Your task to perform on an android device: turn pop-ups on in chrome Image 0: 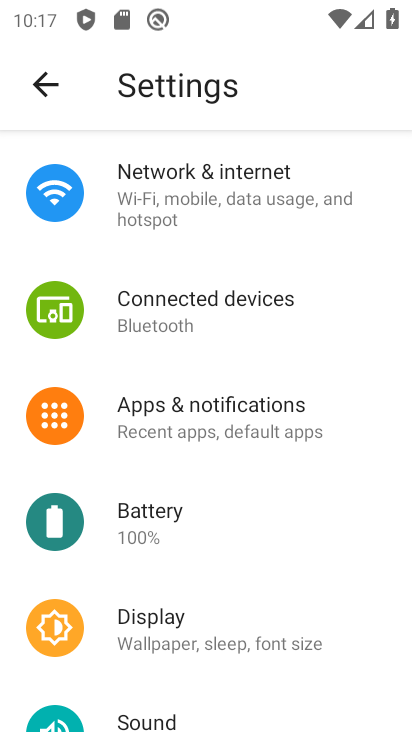
Step 0: press home button
Your task to perform on an android device: turn pop-ups on in chrome Image 1: 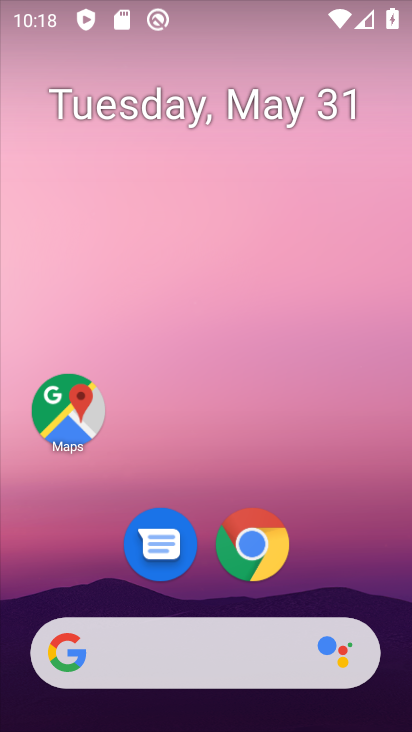
Step 1: click (253, 558)
Your task to perform on an android device: turn pop-ups on in chrome Image 2: 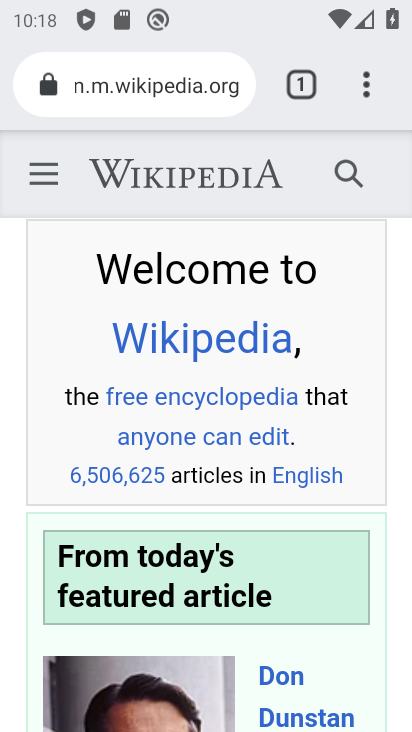
Step 2: click (366, 76)
Your task to perform on an android device: turn pop-ups on in chrome Image 3: 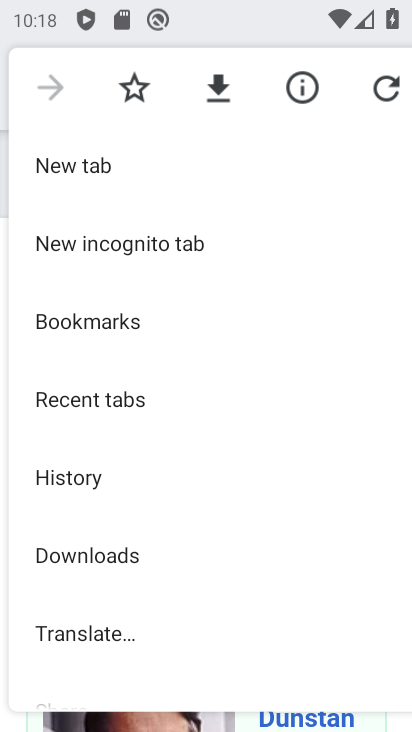
Step 3: drag from (185, 541) to (209, 220)
Your task to perform on an android device: turn pop-ups on in chrome Image 4: 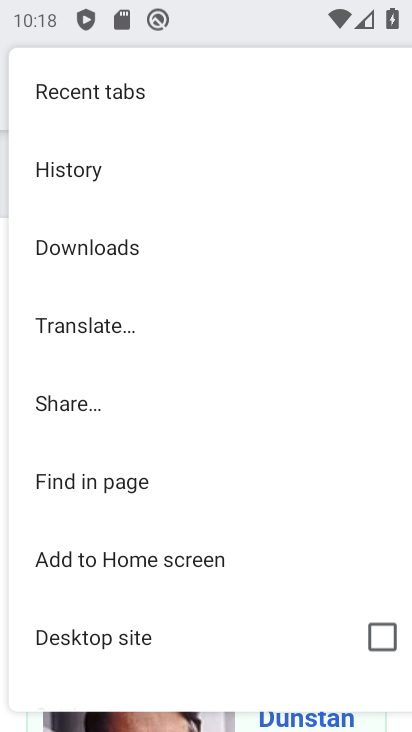
Step 4: drag from (207, 564) to (231, 270)
Your task to perform on an android device: turn pop-ups on in chrome Image 5: 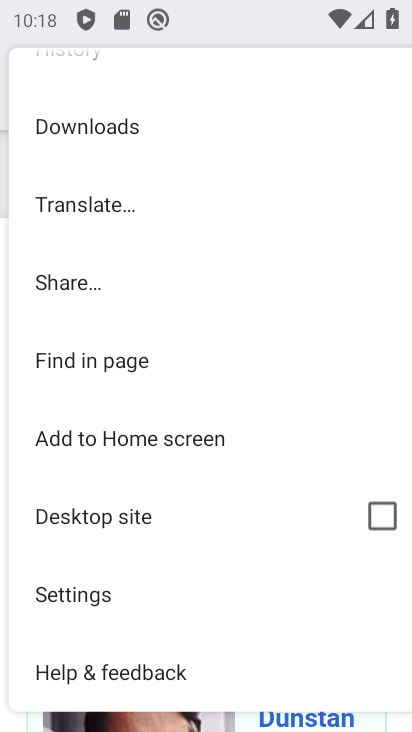
Step 5: click (112, 598)
Your task to perform on an android device: turn pop-ups on in chrome Image 6: 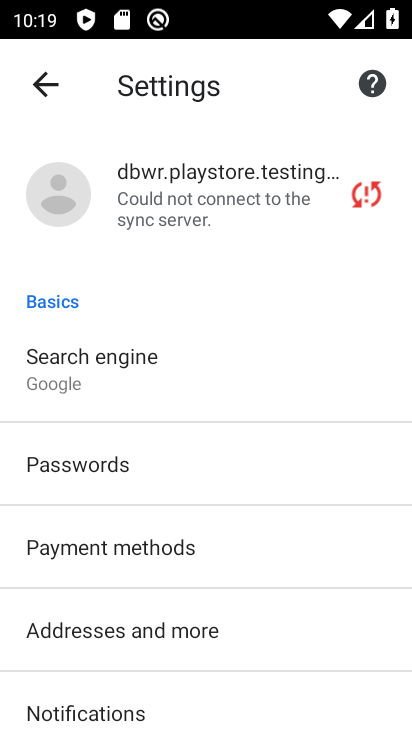
Step 6: drag from (148, 673) to (145, 406)
Your task to perform on an android device: turn pop-ups on in chrome Image 7: 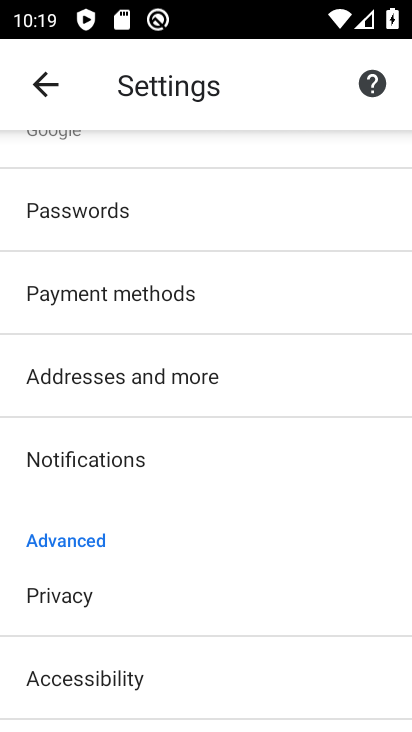
Step 7: drag from (219, 583) to (210, 272)
Your task to perform on an android device: turn pop-ups on in chrome Image 8: 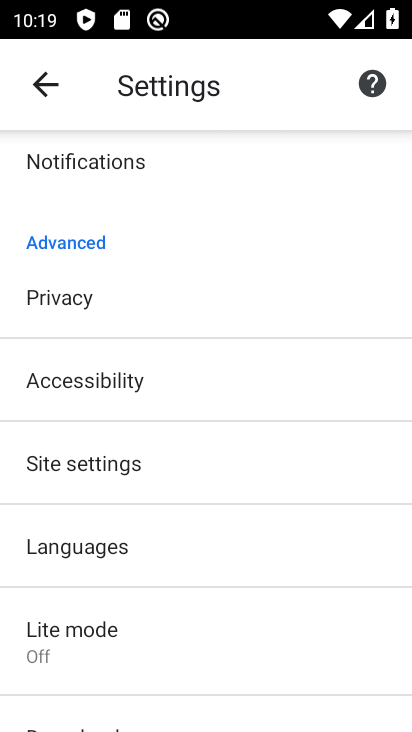
Step 8: click (112, 471)
Your task to perform on an android device: turn pop-ups on in chrome Image 9: 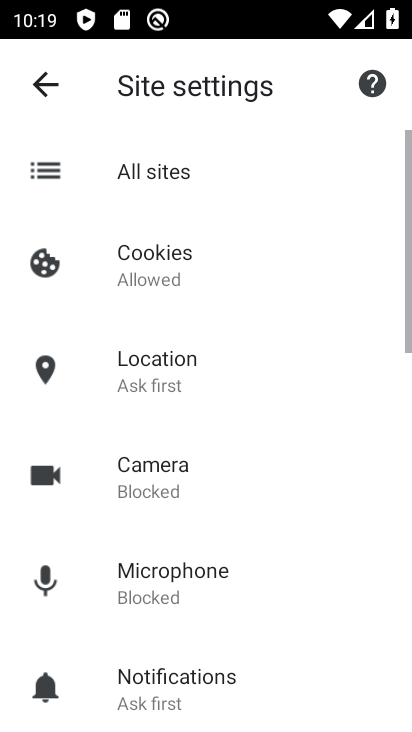
Step 9: drag from (192, 634) to (218, 276)
Your task to perform on an android device: turn pop-ups on in chrome Image 10: 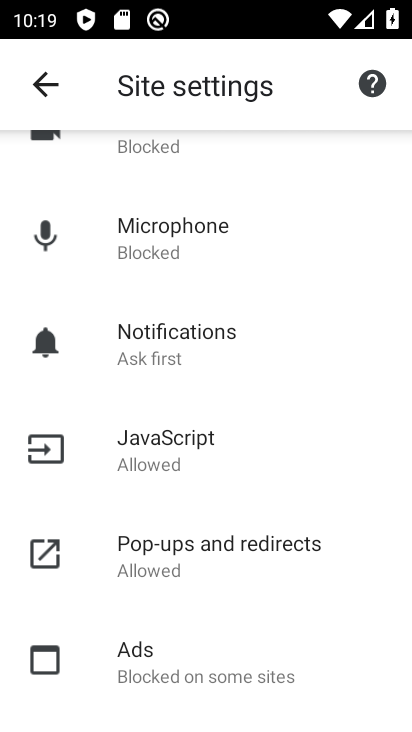
Step 10: click (220, 541)
Your task to perform on an android device: turn pop-ups on in chrome Image 11: 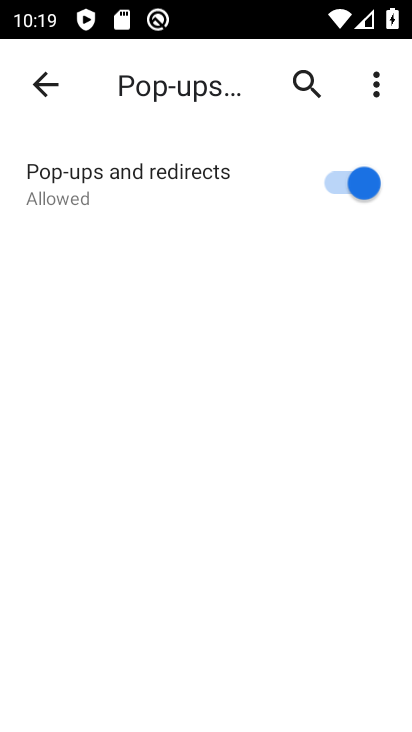
Step 11: task complete